Your task to perform on an android device: turn off notifications settings in the gmail app Image 0: 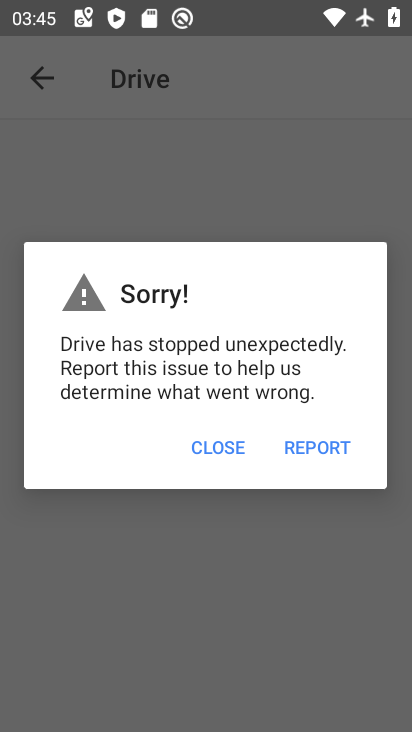
Step 0: press home button
Your task to perform on an android device: turn off notifications settings in the gmail app Image 1: 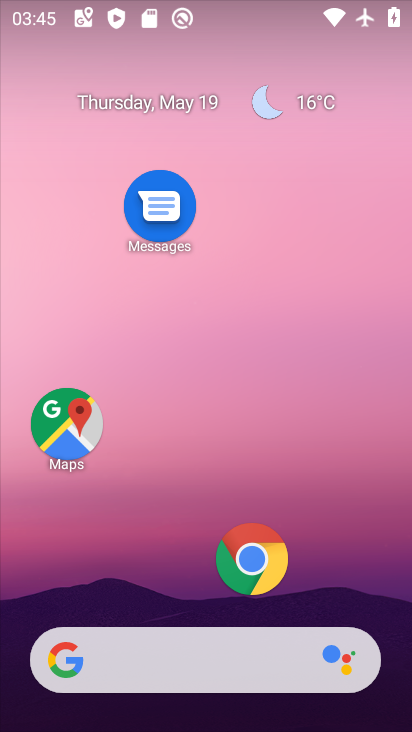
Step 1: drag from (191, 597) to (221, 211)
Your task to perform on an android device: turn off notifications settings in the gmail app Image 2: 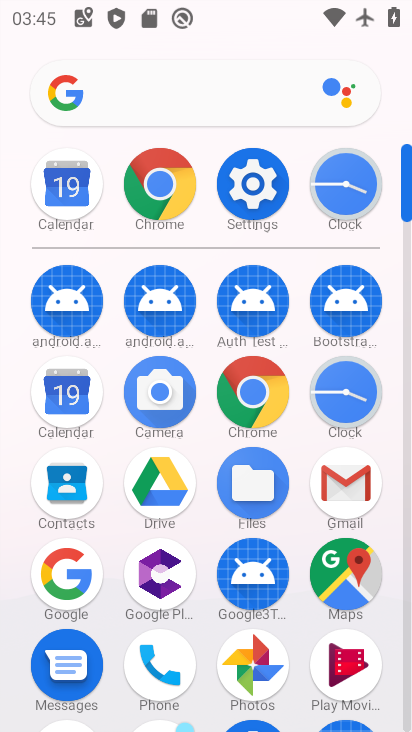
Step 2: click (328, 494)
Your task to perform on an android device: turn off notifications settings in the gmail app Image 3: 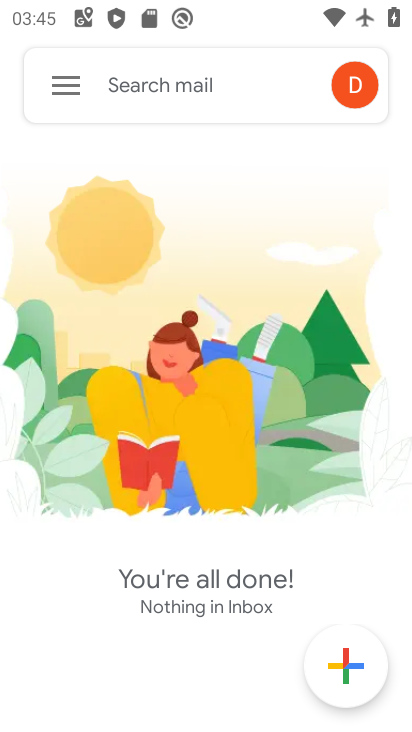
Step 3: click (58, 94)
Your task to perform on an android device: turn off notifications settings in the gmail app Image 4: 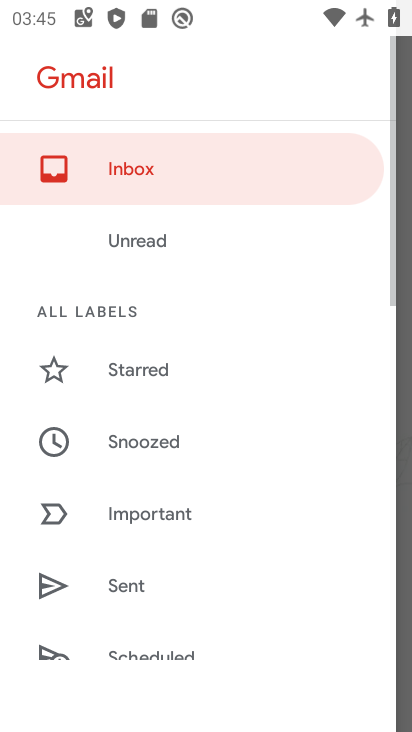
Step 4: drag from (225, 586) to (232, 288)
Your task to perform on an android device: turn off notifications settings in the gmail app Image 5: 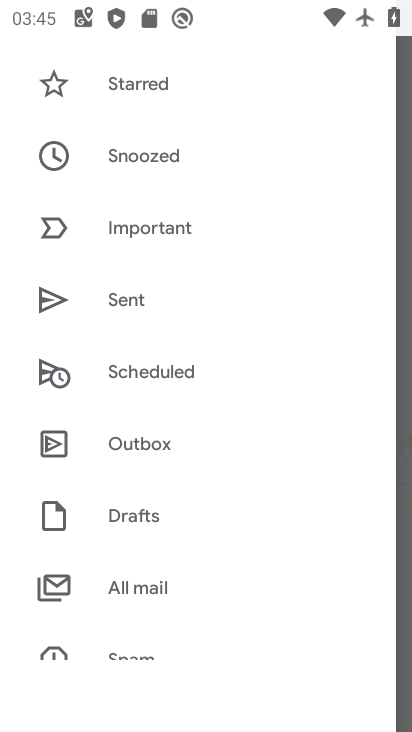
Step 5: drag from (205, 625) to (223, 353)
Your task to perform on an android device: turn off notifications settings in the gmail app Image 6: 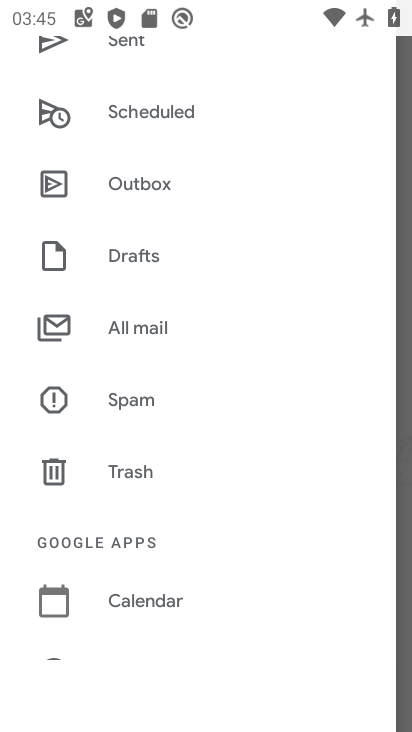
Step 6: drag from (161, 623) to (232, 318)
Your task to perform on an android device: turn off notifications settings in the gmail app Image 7: 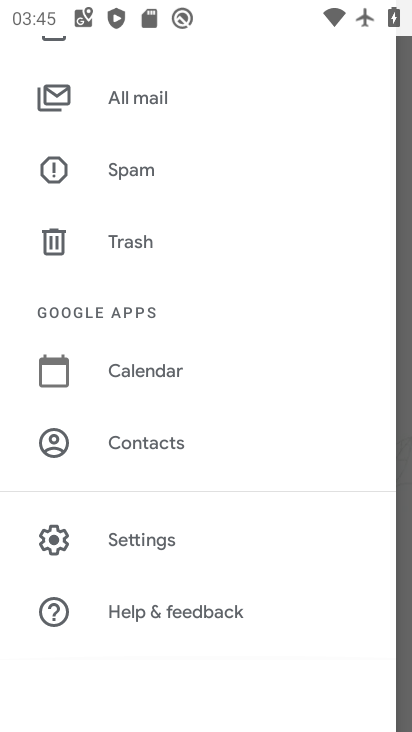
Step 7: click (162, 534)
Your task to perform on an android device: turn off notifications settings in the gmail app Image 8: 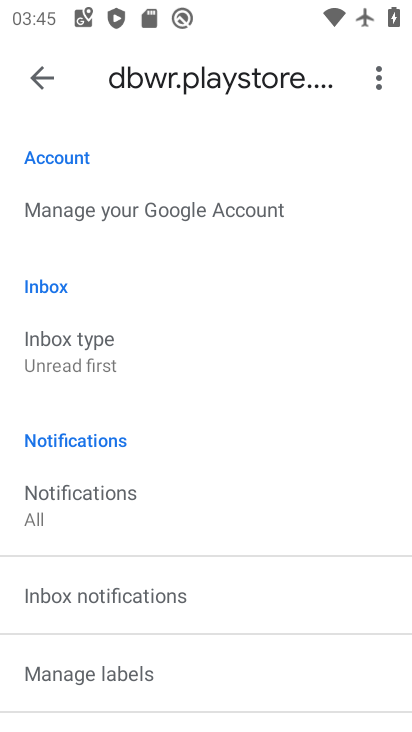
Step 8: drag from (161, 665) to (216, 504)
Your task to perform on an android device: turn off notifications settings in the gmail app Image 9: 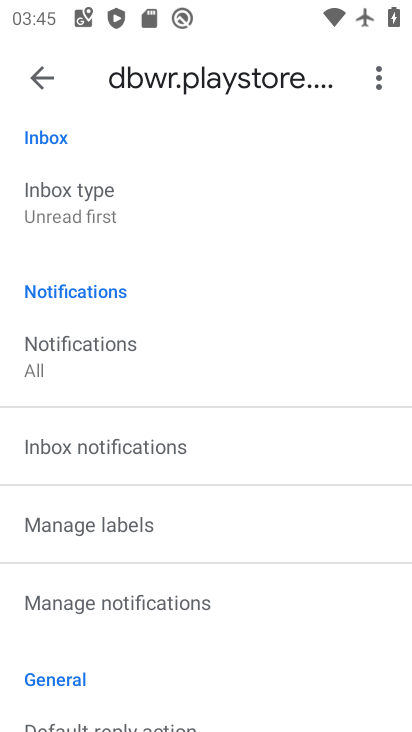
Step 9: click (149, 600)
Your task to perform on an android device: turn off notifications settings in the gmail app Image 10: 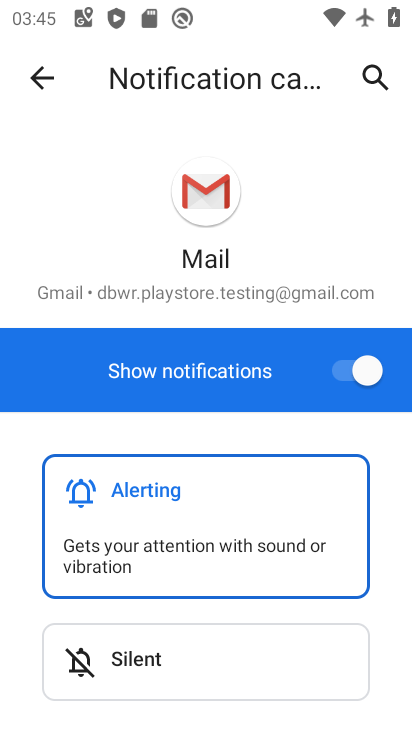
Step 10: click (338, 366)
Your task to perform on an android device: turn off notifications settings in the gmail app Image 11: 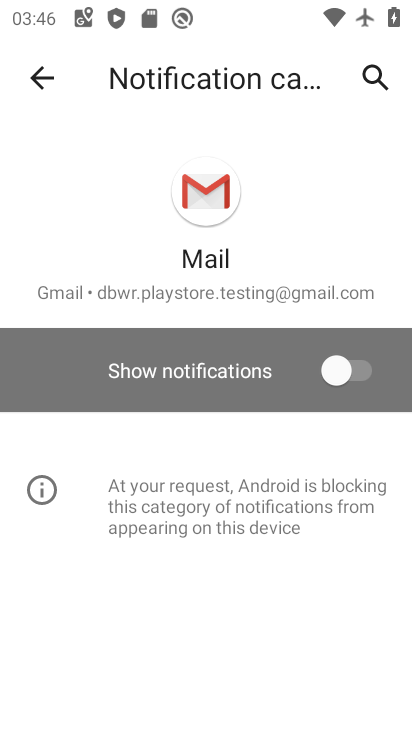
Step 11: task complete